Your task to perform on an android device: Open Google Chrome and open the bookmarks view Image 0: 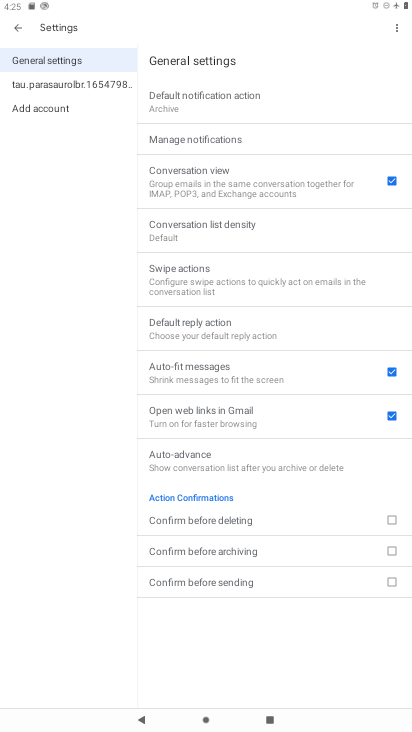
Step 0: press home button
Your task to perform on an android device: Open Google Chrome and open the bookmarks view Image 1: 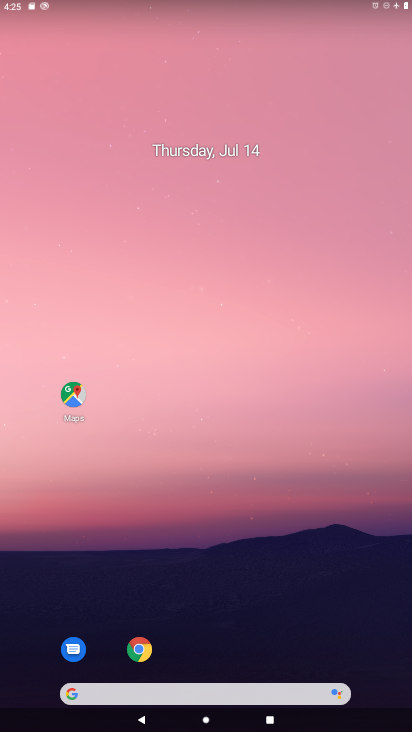
Step 1: click (136, 654)
Your task to perform on an android device: Open Google Chrome and open the bookmarks view Image 2: 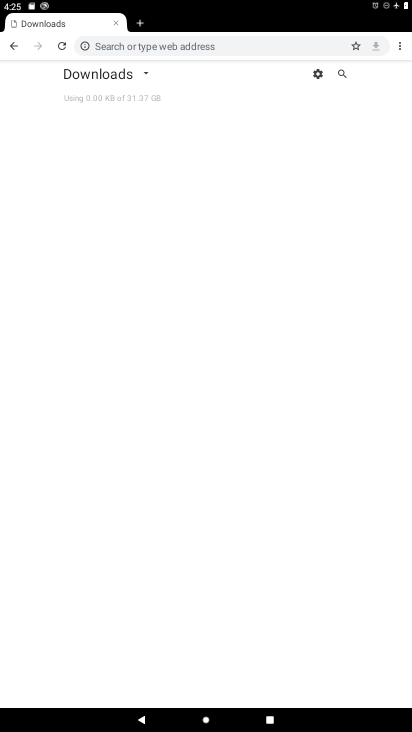
Step 2: click (399, 44)
Your task to perform on an android device: Open Google Chrome and open the bookmarks view Image 3: 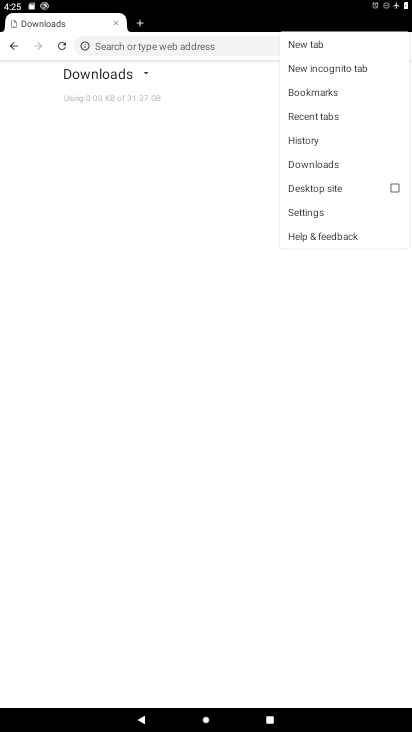
Step 3: click (311, 95)
Your task to perform on an android device: Open Google Chrome and open the bookmarks view Image 4: 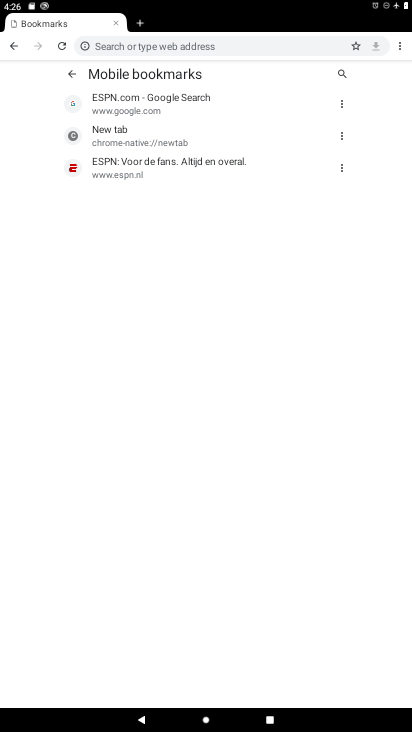
Step 4: task complete